Your task to perform on an android device: Go to CNN.com Image 0: 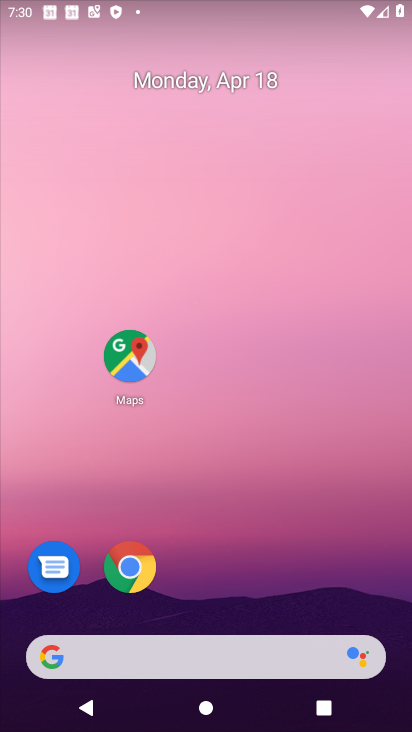
Step 0: click (145, 581)
Your task to perform on an android device: Go to CNN.com Image 1: 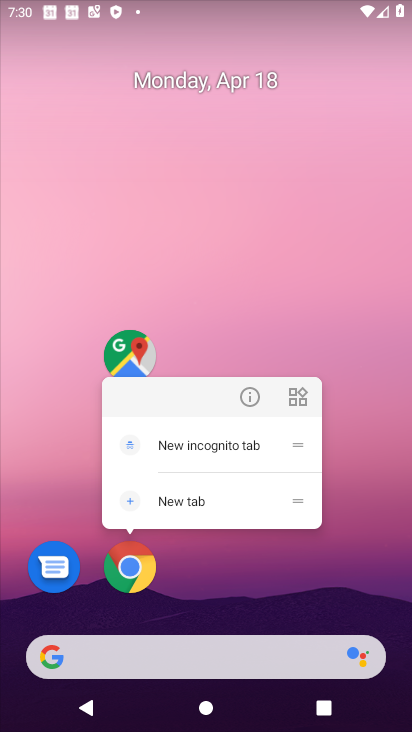
Step 1: click (136, 570)
Your task to perform on an android device: Go to CNN.com Image 2: 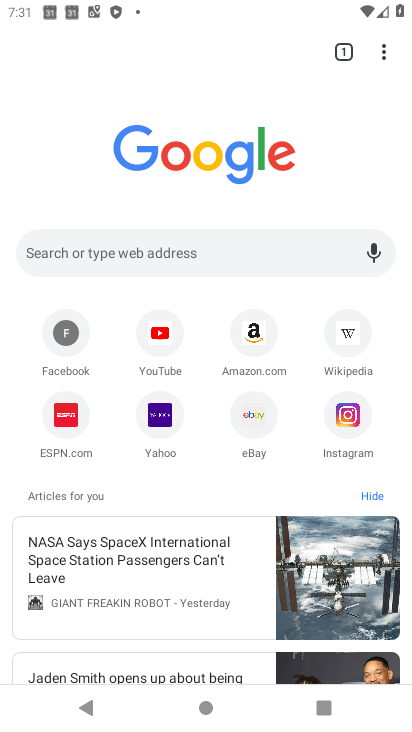
Step 2: click (133, 252)
Your task to perform on an android device: Go to CNN.com Image 3: 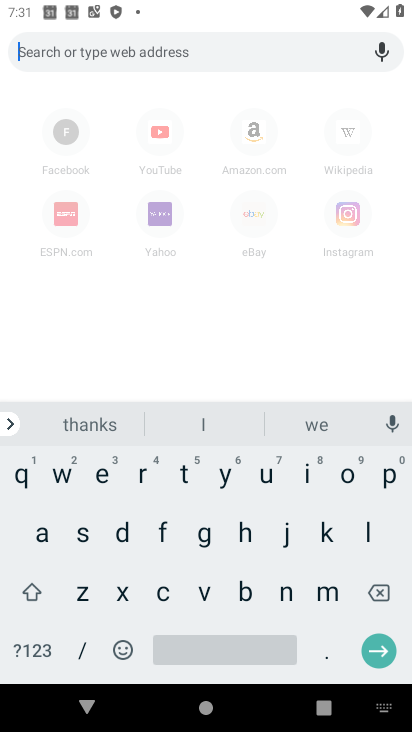
Step 3: click (160, 596)
Your task to perform on an android device: Go to CNN.com Image 4: 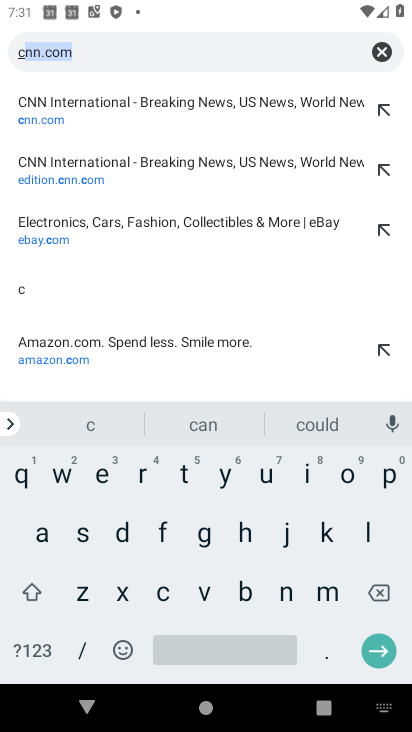
Step 4: click (289, 593)
Your task to perform on an android device: Go to CNN.com Image 5: 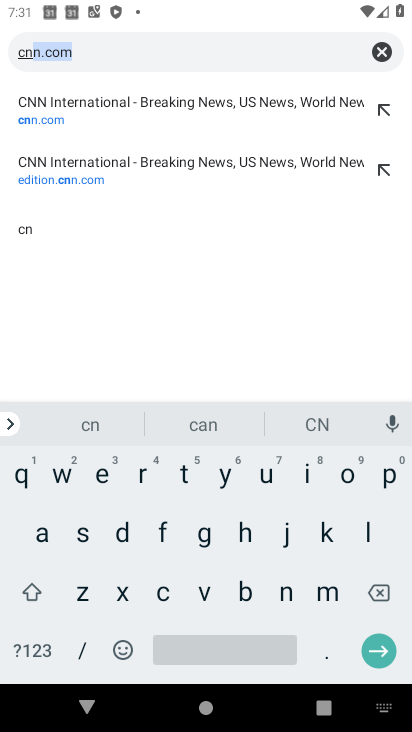
Step 5: click (91, 57)
Your task to perform on an android device: Go to CNN.com Image 6: 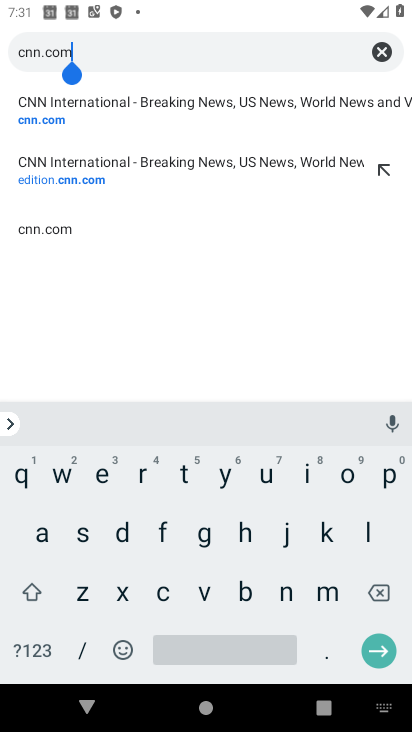
Step 6: click (385, 648)
Your task to perform on an android device: Go to CNN.com Image 7: 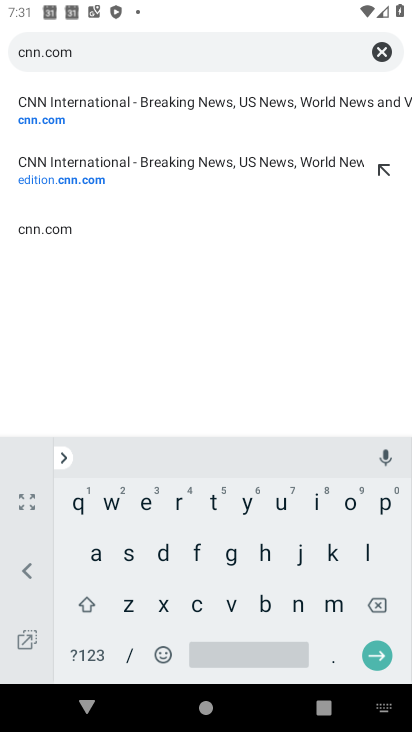
Step 7: click (375, 657)
Your task to perform on an android device: Go to CNN.com Image 8: 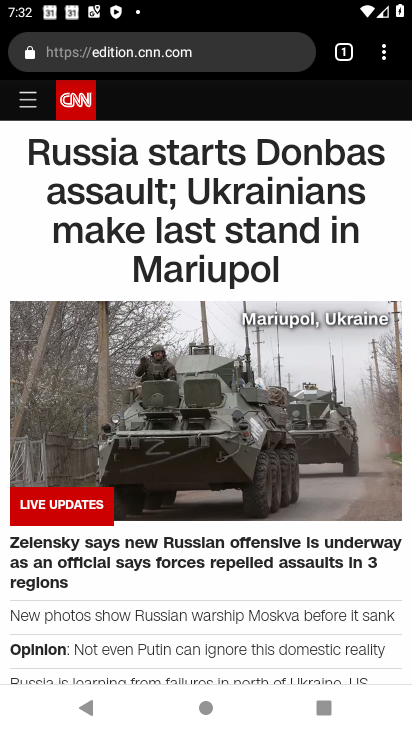
Step 8: task complete